Your task to perform on an android device: Open Chrome and go to the settings page Image 0: 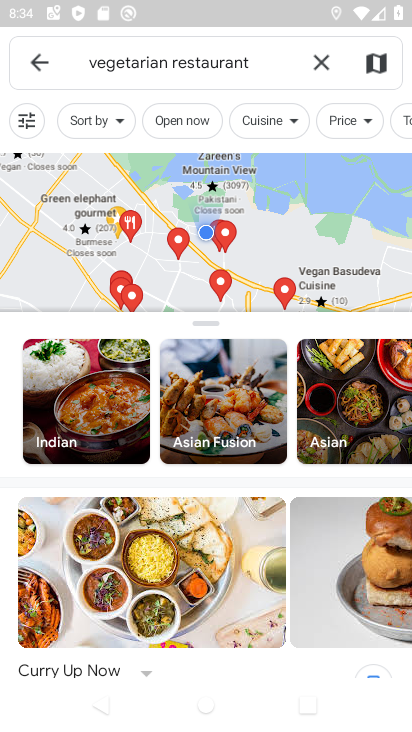
Step 0: press home button
Your task to perform on an android device: Open Chrome and go to the settings page Image 1: 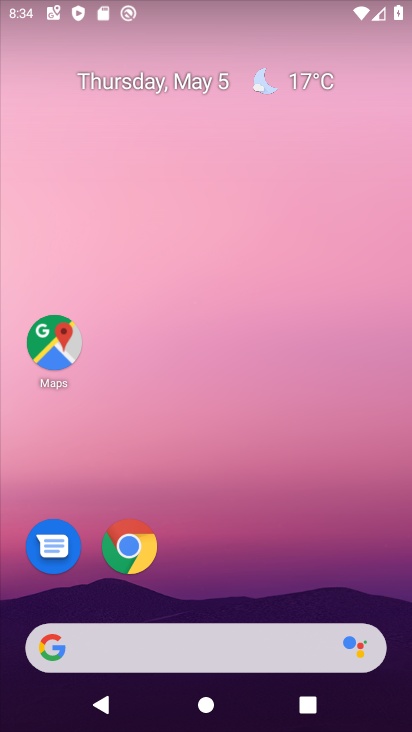
Step 1: drag from (167, 651) to (341, 98)
Your task to perform on an android device: Open Chrome and go to the settings page Image 2: 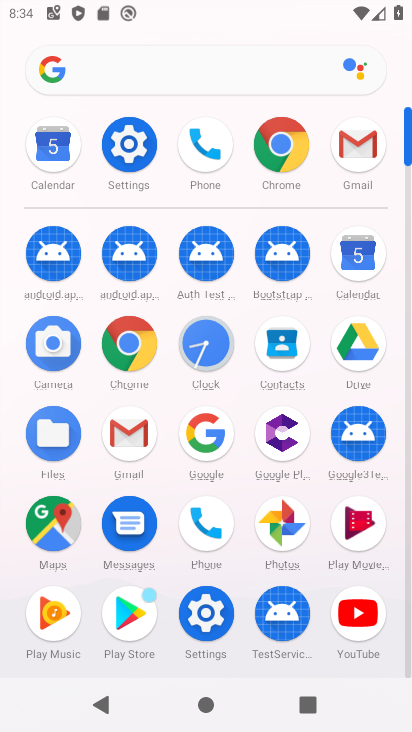
Step 2: click (287, 160)
Your task to perform on an android device: Open Chrome and go to the settings page Image 3: 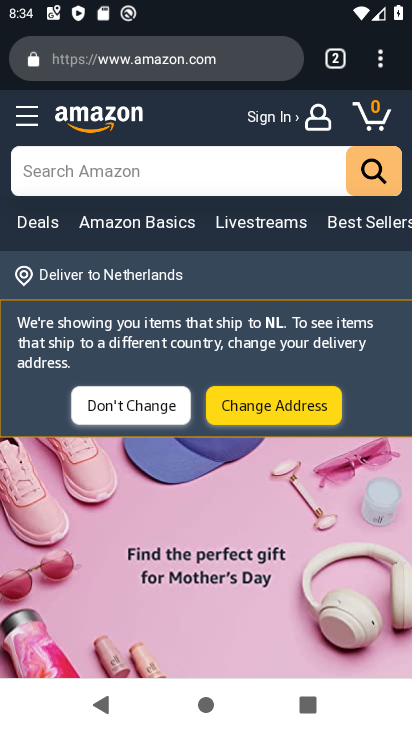
Step 3: drag from (380, 67) to (204, 570)
Your task to perform on an android device: Open Chrome and go to the settings page Image 4: 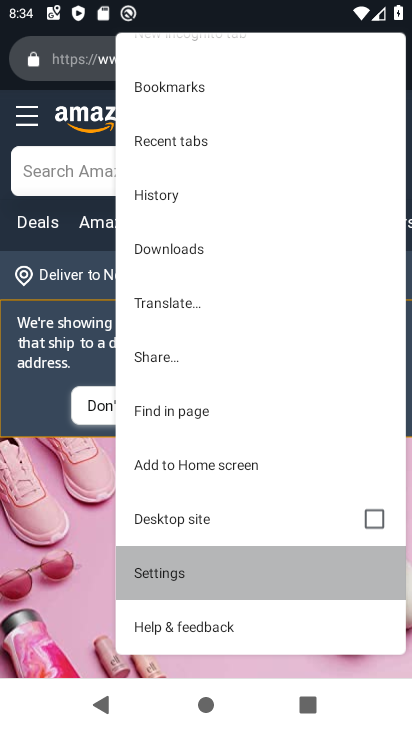
Step 4: click (204, 570)
Your task to perform on an android device: Open Chrome and go to the settings page Image 5: 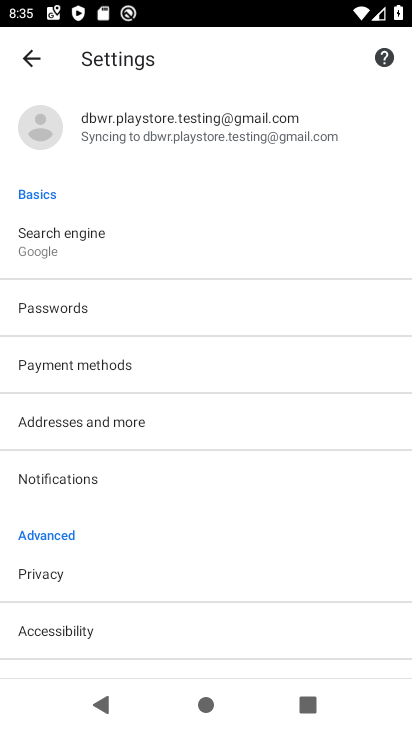
Step 5: task complete